Your task to perform on an android device: Set the phone to "Do not disturb". Image 0: 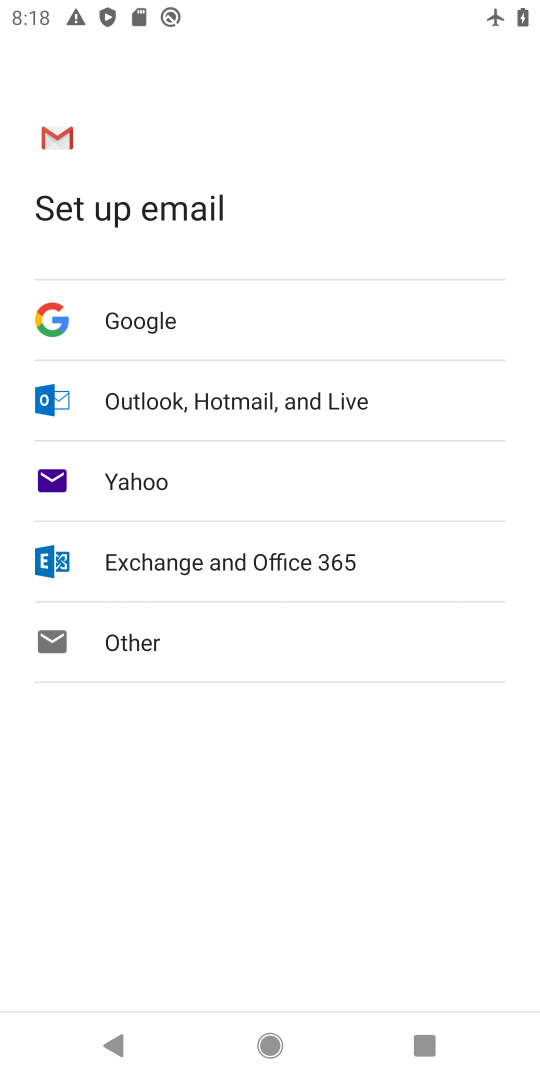
Step 0: drag from (407, 16) to (293, 598)
Your task to perform on an android device: Set the phone to "Do not disturb". Image 1: 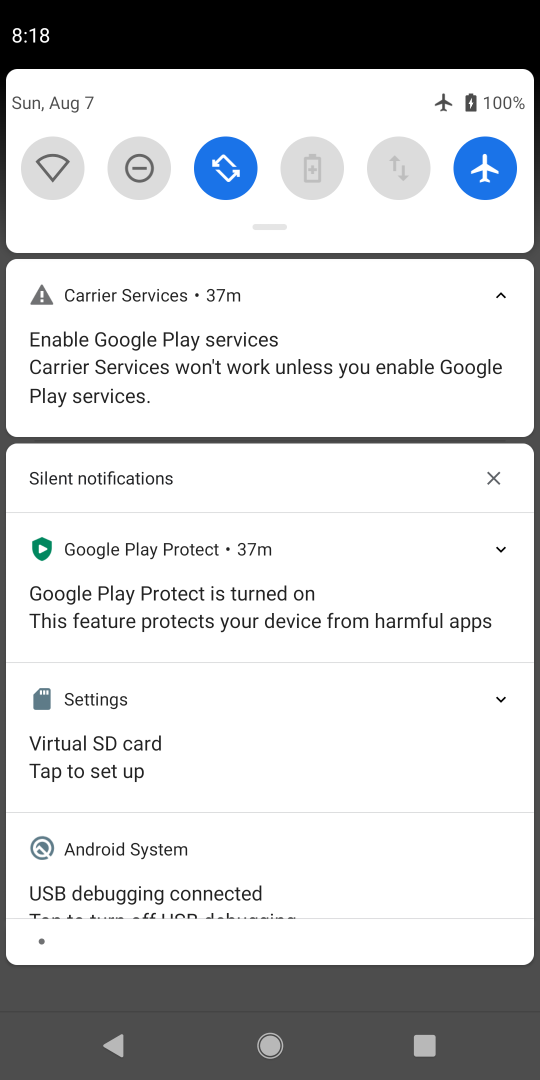
Step 1: drag from (305, 201) to (299, 749)
Your task to perform on an android device: Set the phone to "Do not disturb". Image 2: 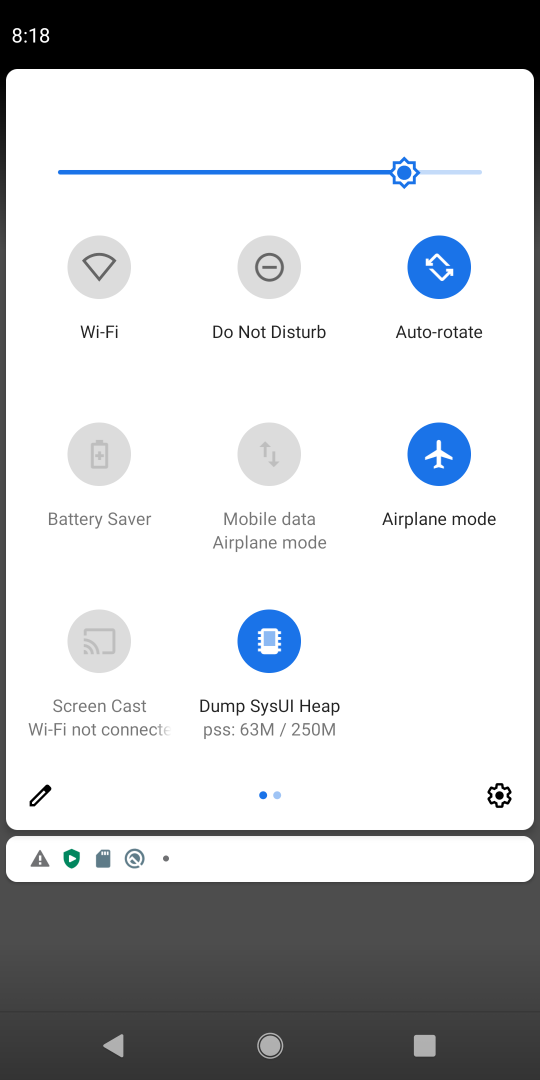
Step 2: click (270, 280)
Your task to perform on an android device: Set the phone to "Do not disturb". Image 3: 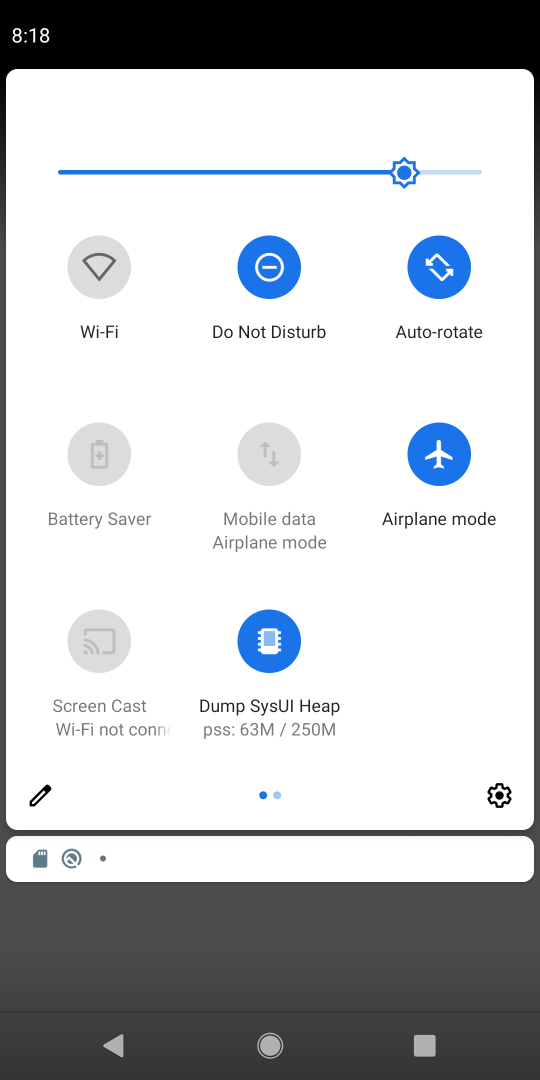
Step 3: task complete